Your task to perform on an android device: find snoozed emails in the gmail app Image 0: 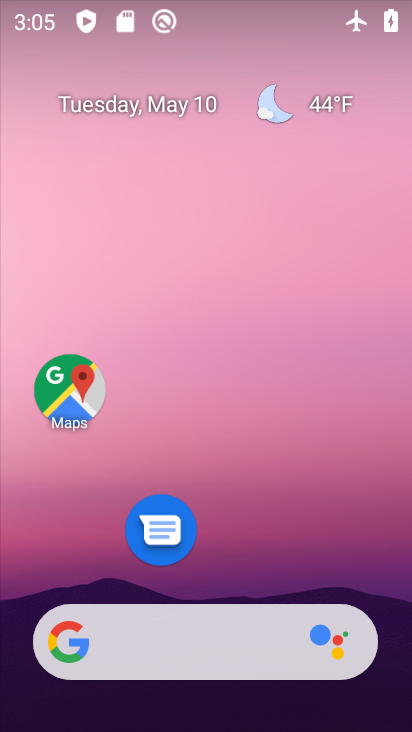
Step 0: drag from (241, 553) to (266, 103)
Your task to perform on an android device: find snoozed emails in the gmail app Image 1: 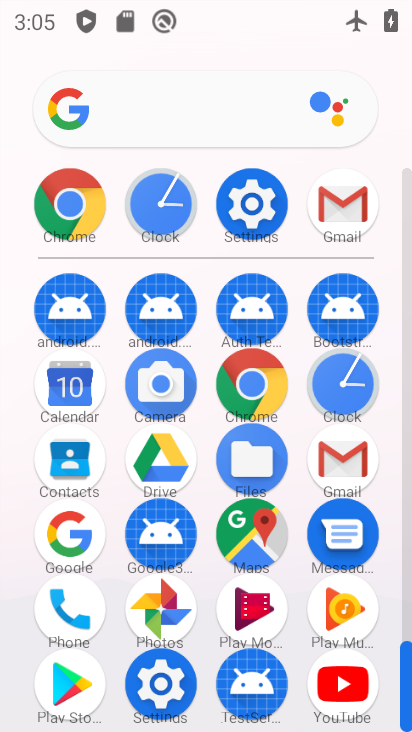
Step 1: click (333, 211)
Your task to perform on an android device: find snoozed emails in the gmail app Image 2: 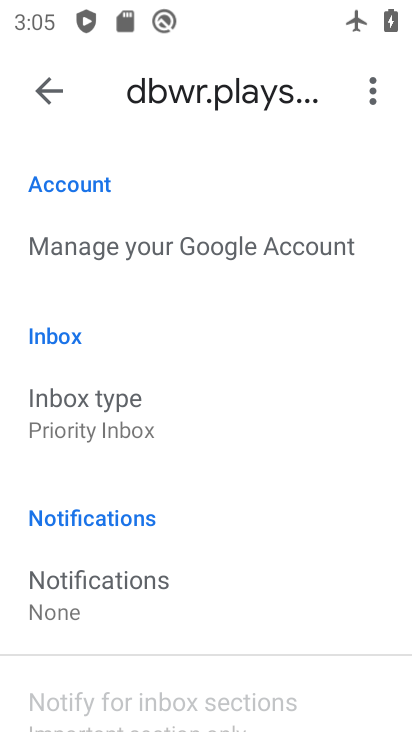
Step 2: drag from (145, 568) to (180, 377)
Your task to perform on an android device: find snoozed emails in the gmail app Image 3: 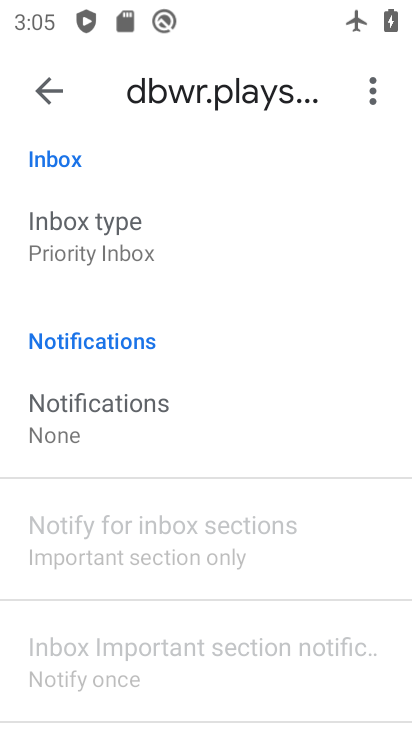
Step 3: drag from (176, 255) to (241, 615)
Your task to perform on an android device: find snoozed emails in the gmail app Image 4: 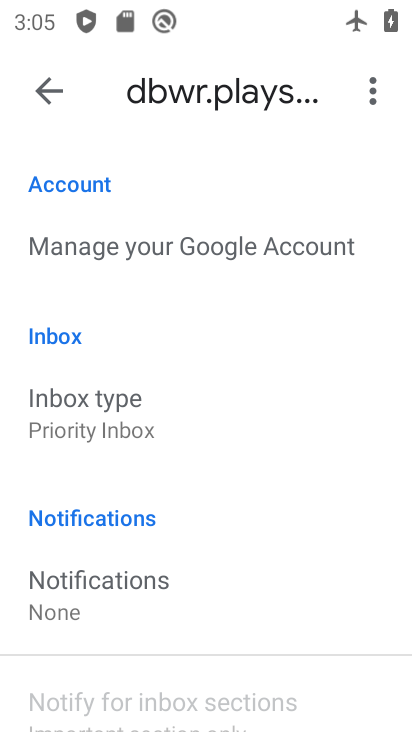
Step 4: press back button
Your task to perform on an android device: find snoozed emails in the gmail app Image 5: 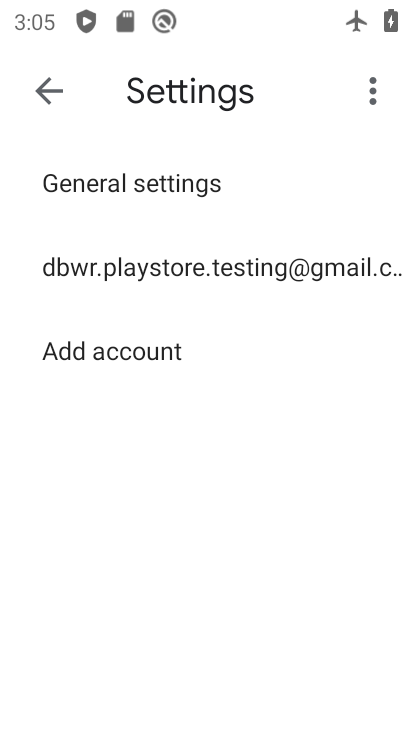
Step 5: press back button
Your task to perform on an android device: find snoozed emails in the gmail app Image 6: 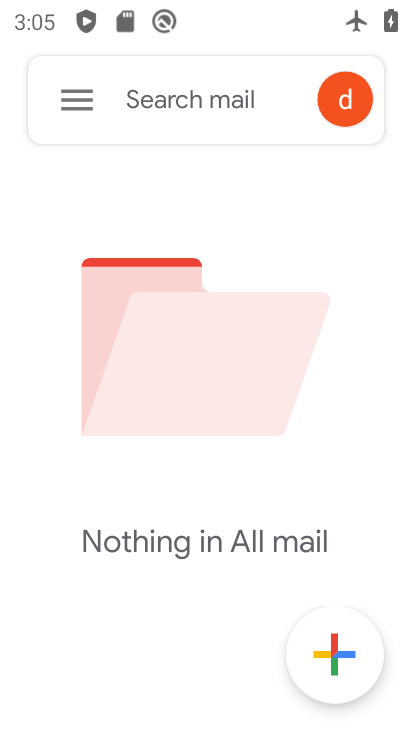
Step 6: click (64, 90)
Your task to perform on an android device: find snoozed emails in the gmail app Image 7: 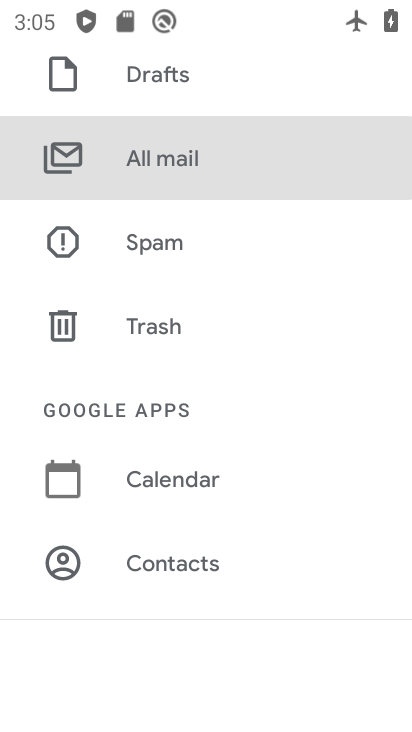
Step 7: drag from (169, 164) to (161, 605)
Your task to perform on an android device: find snoozed emails in the gmail app Image 8: 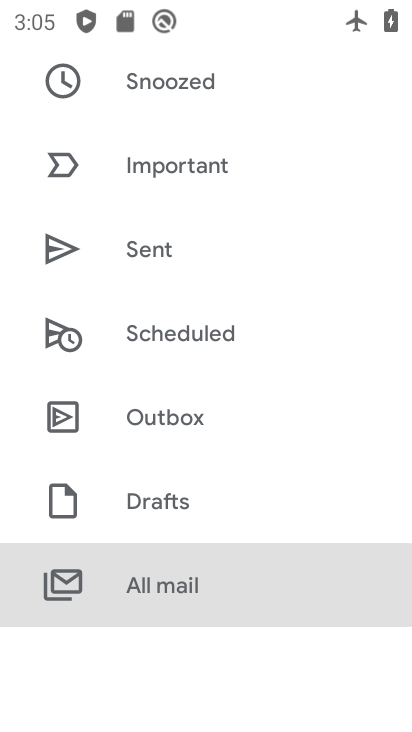
Step 8: drag from (178, 181) to (188, 377)
Your task to perform on an android device: find snoozed emails in the gmail app Image 9: 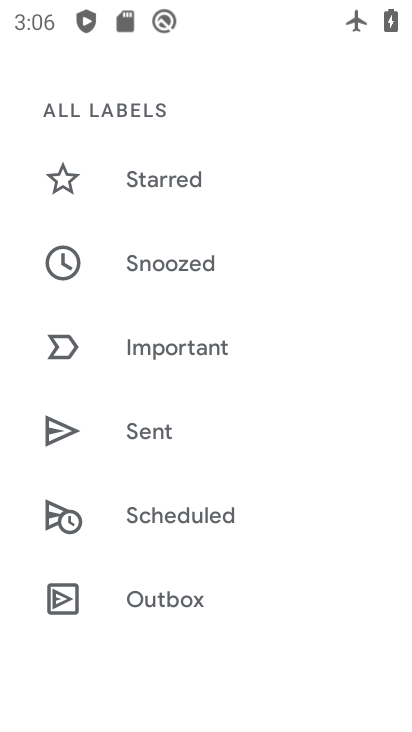
Step 9: click (157, 264)
Your task to perform on an android device: find snoozed emails in the gmail app Image 10: 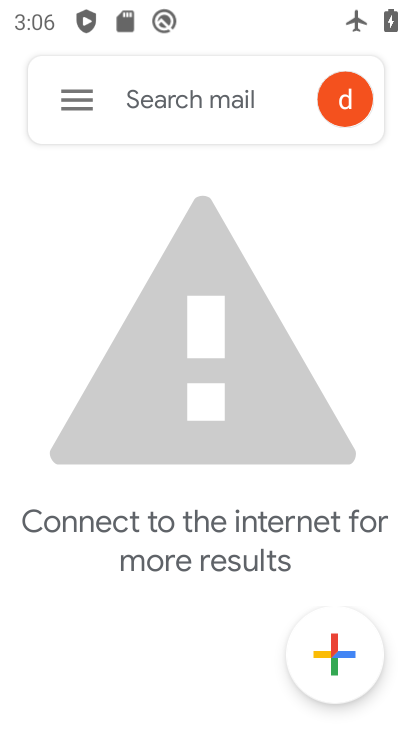
Step 10: task complete